Your task to perform on an android device: turn off priority inbox in the gmail app Image 0: 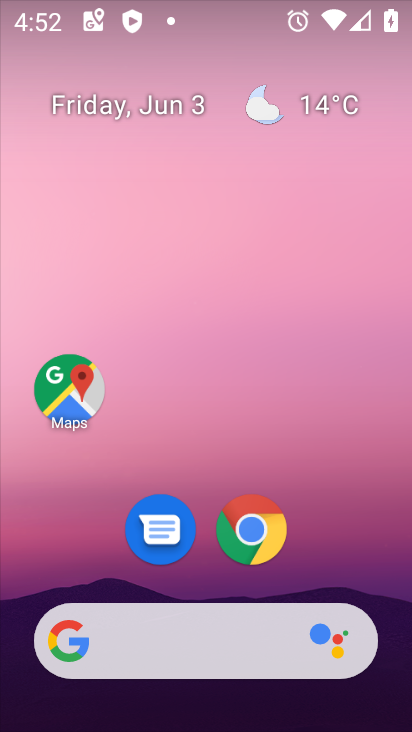
Step 0: drag from (206, 564) to (242, 91)
Your task to perform on an android device: turn off priority inbox in the gmail app Image 1: 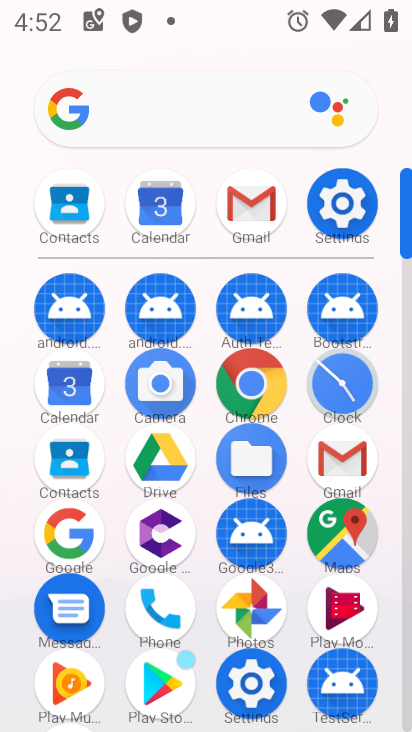
Step 1: click (249, 192)
Your task to perform on an android device: turn off priority inbox in the gmail app Image 2: 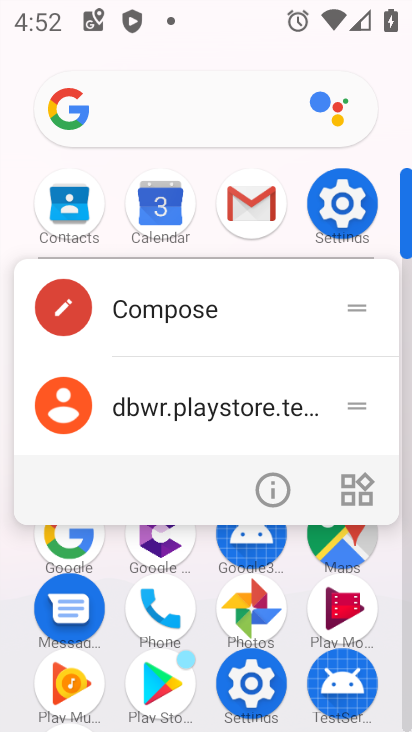
Step 2: click (248, 194)
Your task to perform on an android device: turn off priority inbox in the gmail app Image 3: 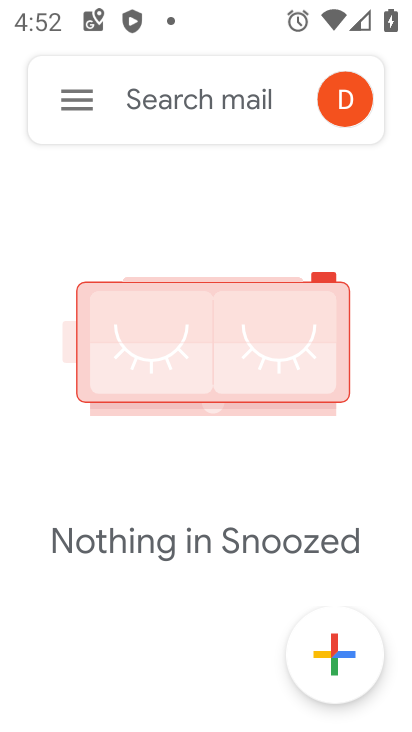
Step 3: click (71, 102)
Your task to perform on an android device: turn off priority inbox in the gmail app Image 4: 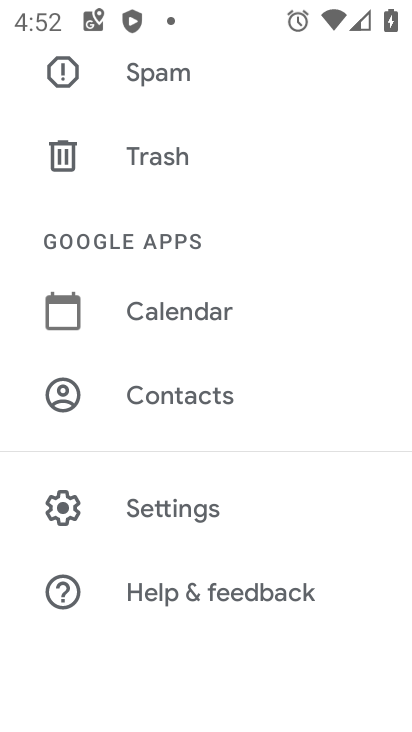
Step 4: click (110, 496)
Your task to perform on an android device: turn off priority inbox in the gmail app Image 5: 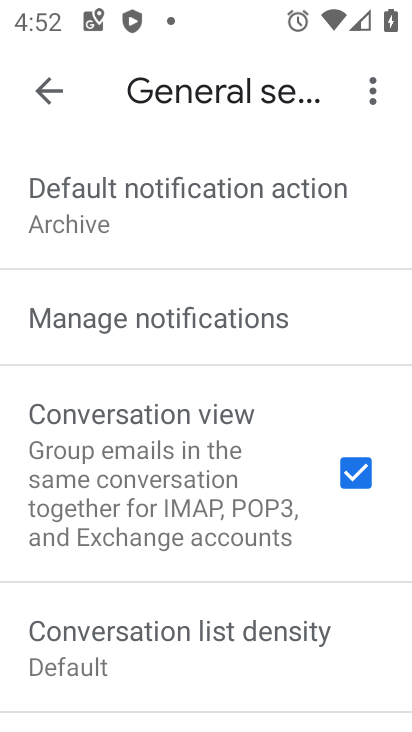
Step 5: click (60, 97)
Your task to perform on an android device: turn off priority inbox in the gmail app Image 6: 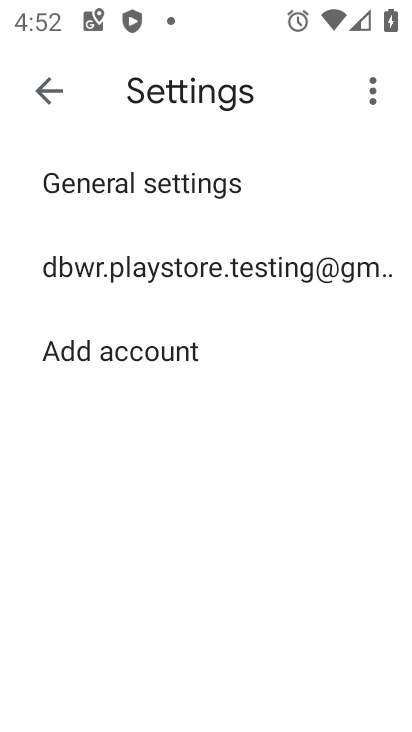
Step 6: click (227, 263)
Your task to perform on an android device: turn off priority inbox in the gmail app Image 7: 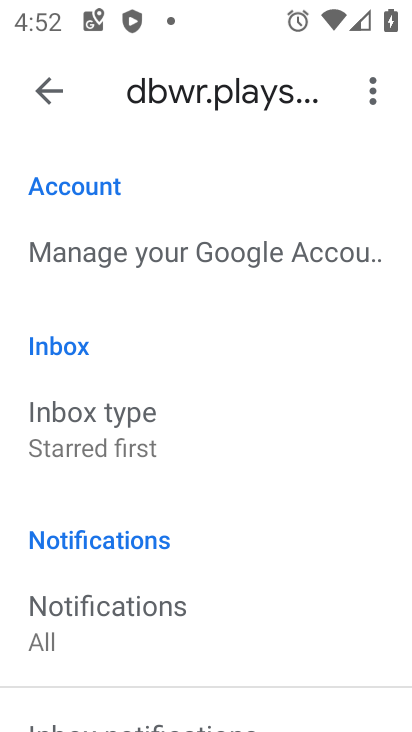
Step 7: click (172, 416)
Your task to perform on an android device: turn off priority inbox in the gmail app Image 8: 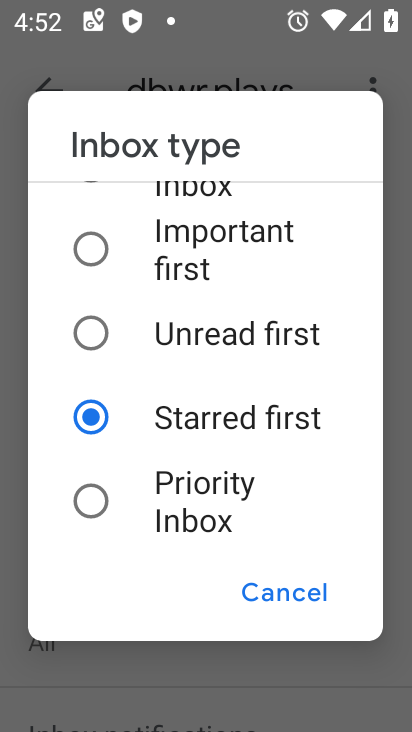
Step 8: drag from (124, 225) to (123, 502)
Your task to perform on an android device: turn off priority inbox in the gmail app Image 9: 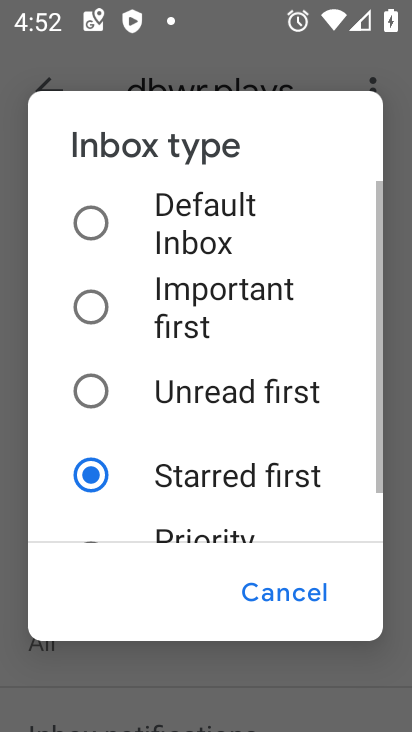
Step 9: click (89, 223)
Your task to perform on an android device: turn off priority inbox in the gmail app Image 10: 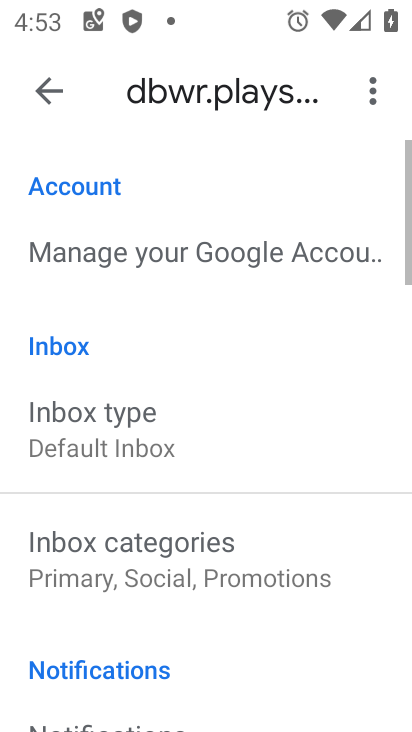
Step 10: task complete